Your task to perform on an android device: When is my next meeting? Image 0: 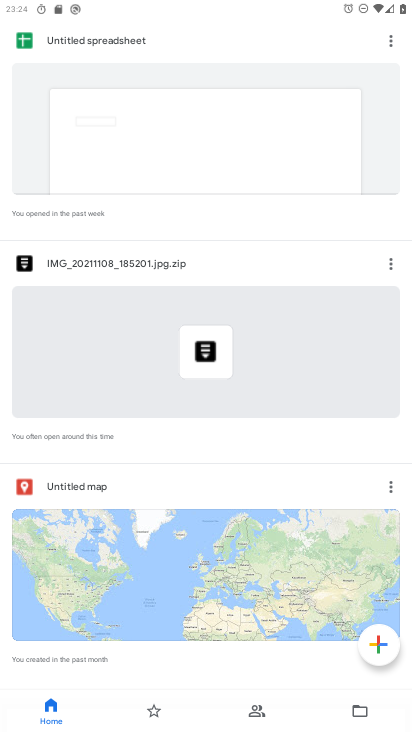
Step 0: drag from (188, 658) to (126, 434)
Your task to perform on an android device: When is my next meeting? Image 1: 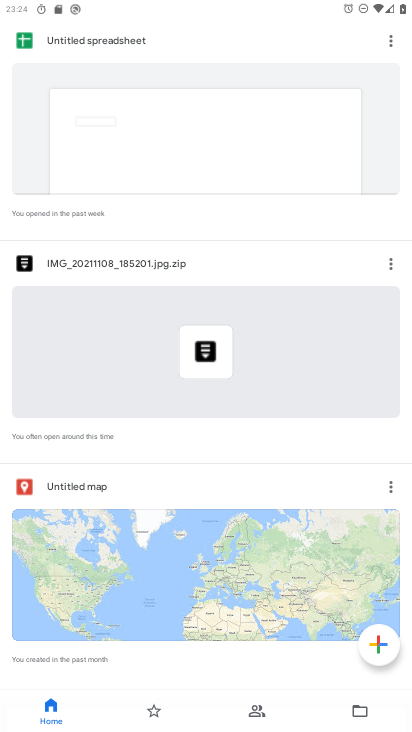
Step 1: press home button
Your task to perform on an android device: When is my next meeting? Image 2: 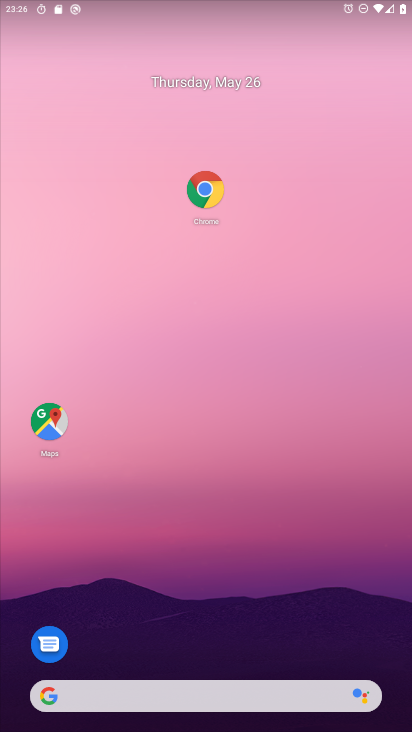
Step 2: drag from (148, 645) to (42, 204)
Your task to perform on an android device: When is my next meeting? Image 3: 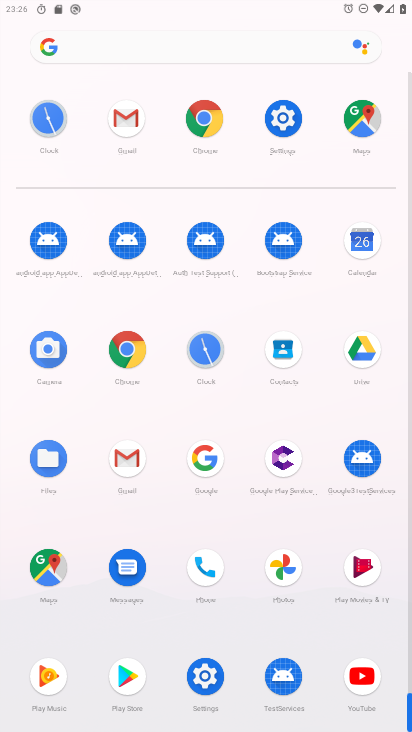
Step 3: click (277, 342)
Your task to perform on an android device: When is my next meeting? Image 4: 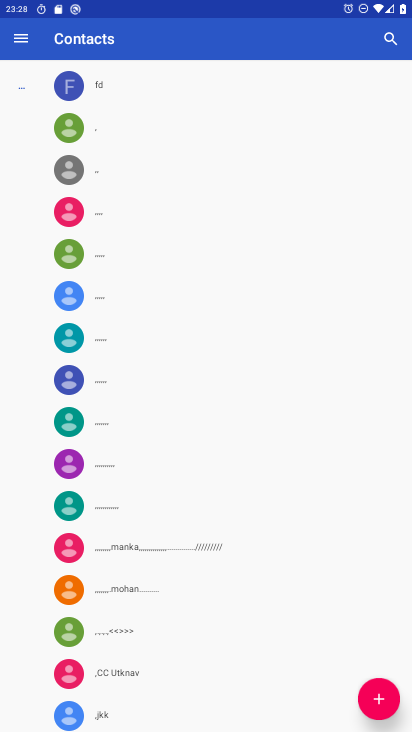
Step 4: press home button
Your task to perform on an android device: When is my next meeting? Image 5: 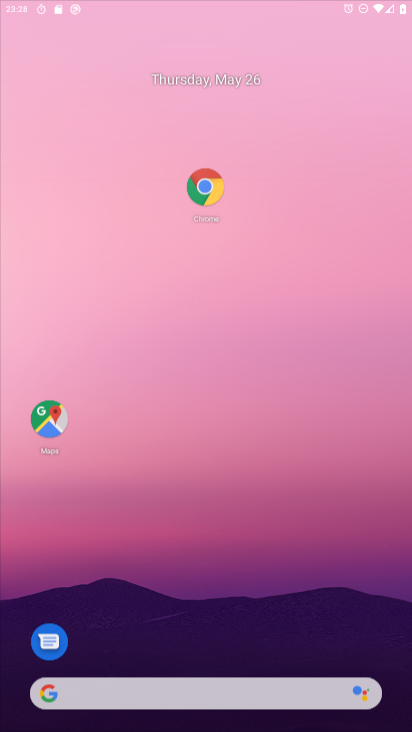
Step 5: drag from (233, 610) to (358, 103)
Your task to perform on an android device: When is my next meeting? Image 6: 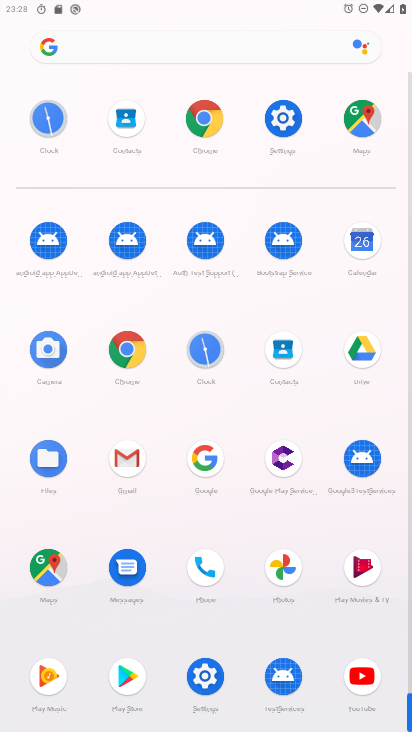
Step 6: click (367, 242)
Your task to perform on an android device: When is my next meeting? Image 7: 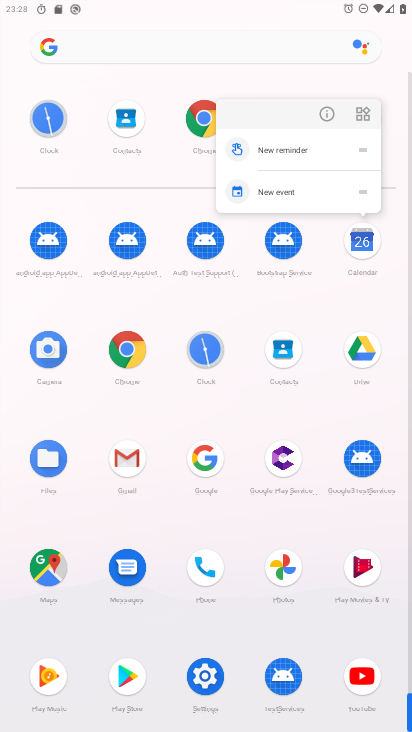
Step 7: click (319, 117)
Your task to perform on an android device: When is my next meeting? Image 8: 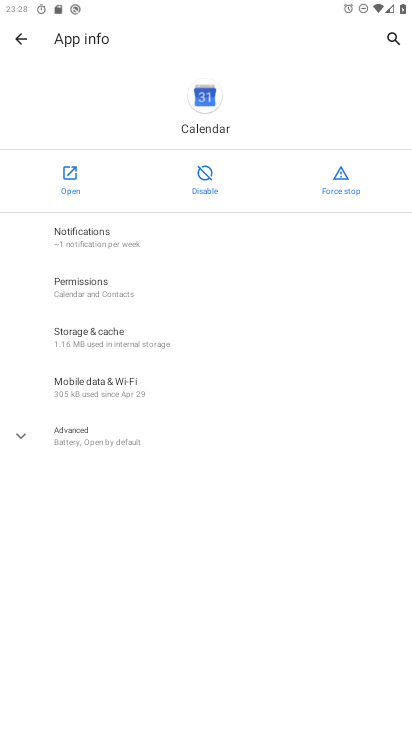
Step 8: click (75, 185)
Your task to perform on an android device: When is my next meeting? Image 9: 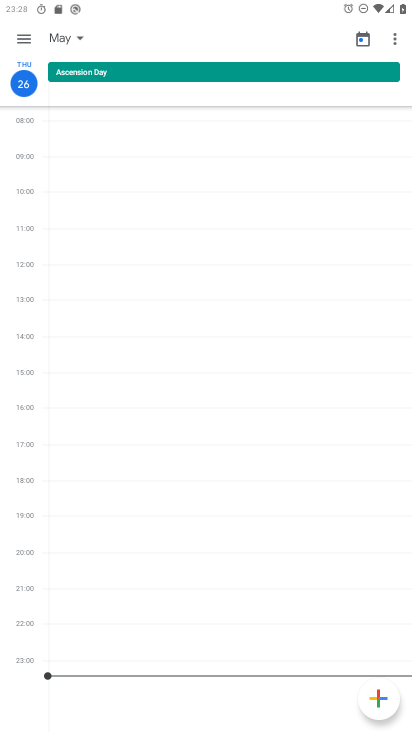
Step 9: click (73, 33)
Your task to perform on an android device: When is my next meeting? Image 10: 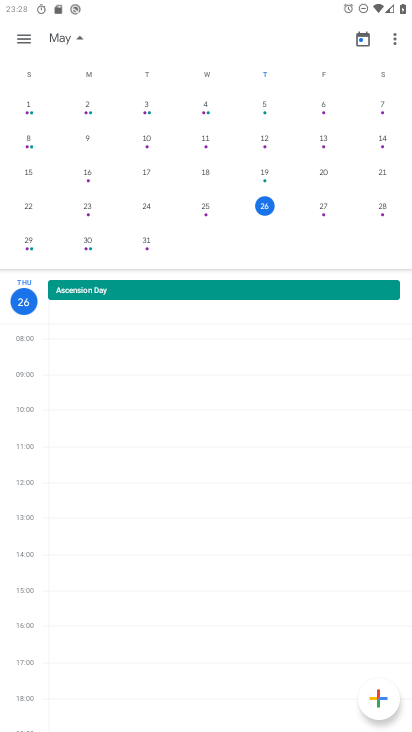
Step 10: click (145, 235)
Your task to perform on an android device: When is my next meeting? Image 11: 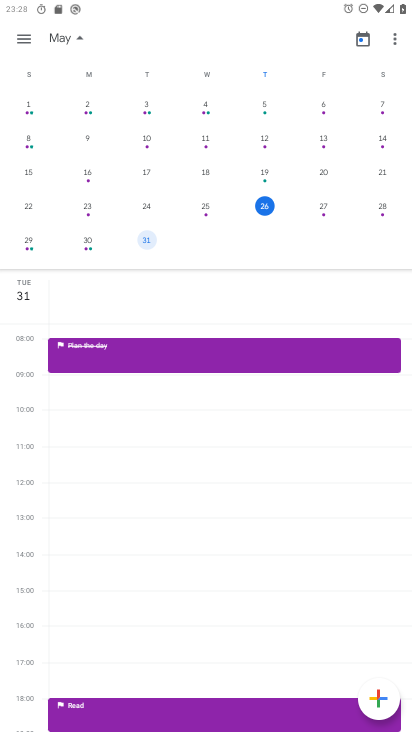
Step 11: task complete